Your task to perform on an android device: change alarm snooze length Image 0: 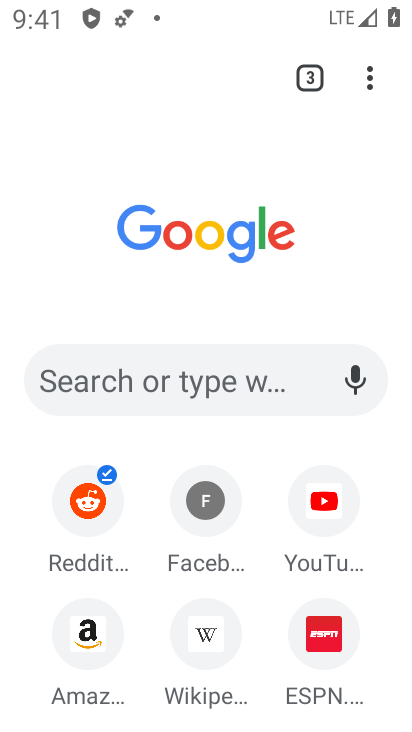
Step 0: press home button
Your task to perform on an android device: change alarm snooze length Image 1: 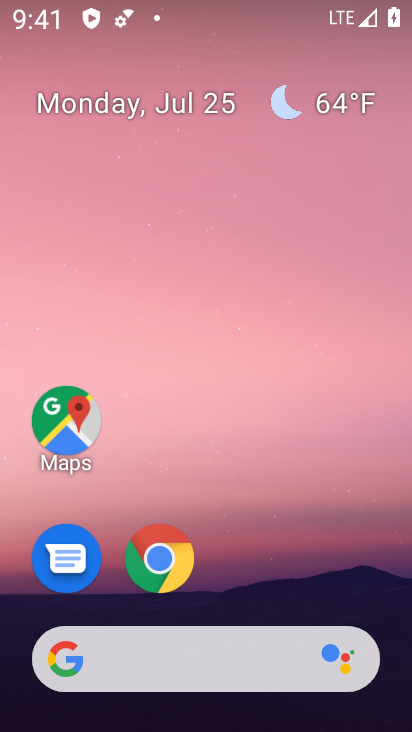
Step 1: drag from (368, 569) to (371, 123)
Your task to perform on an android device: change alarm snooze length Image 2: 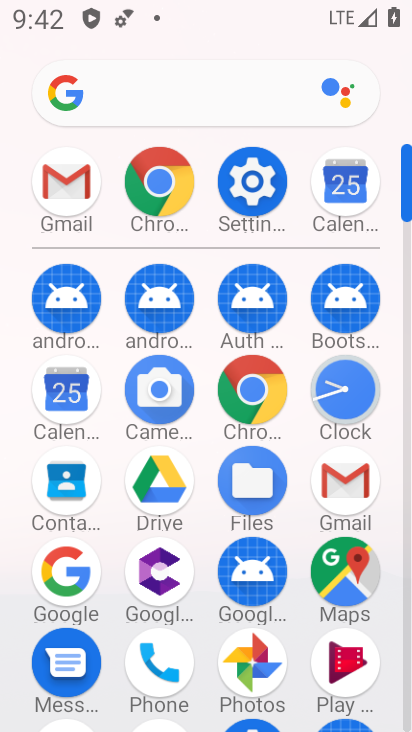
Step 2: click (351, 379)
Your task to perform on an android device: change alarm snooze length Image 3: 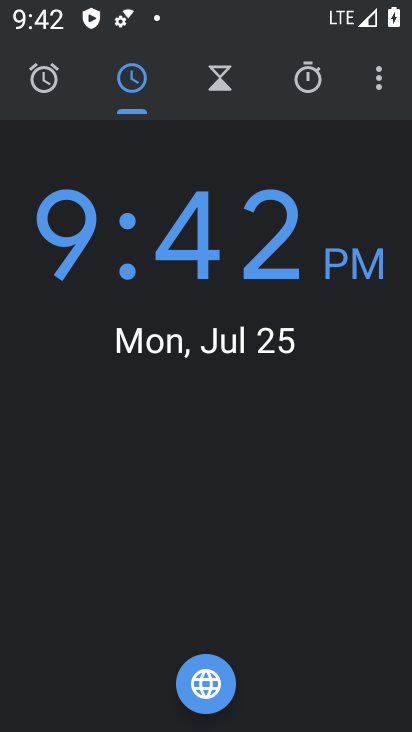
Step 3: click (377, 86)
Your task to perform on an android device: change alarm snooze length Image 4: 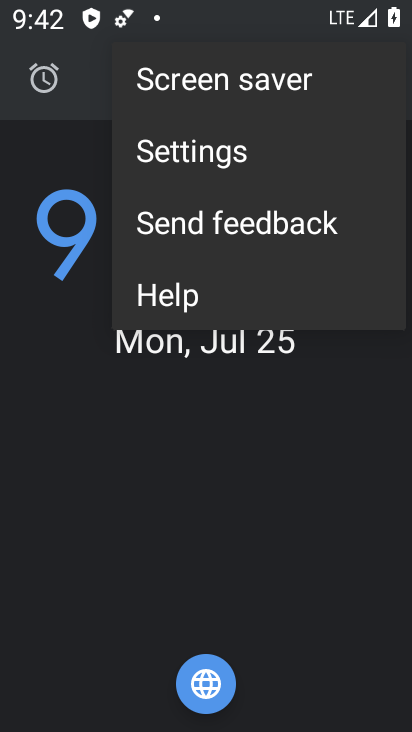
Step 4: click (242, 161)
Your task to perform on an android device: change alarm snooze length Image 5: 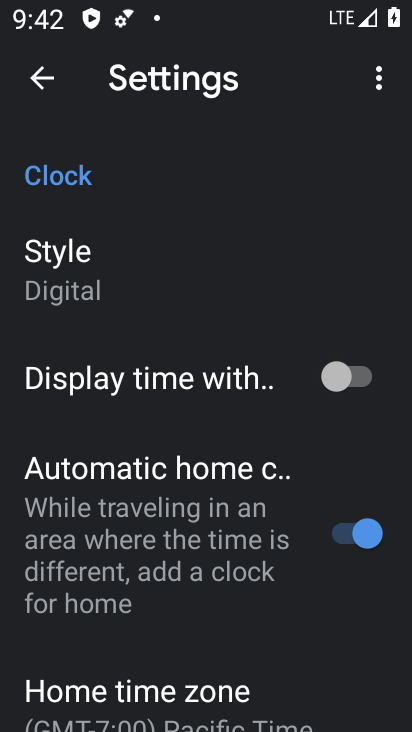
Step 5: drag from (266, 475) to (267, 374)
Your task to perform on an android device: change alarm snooze length Image 6: 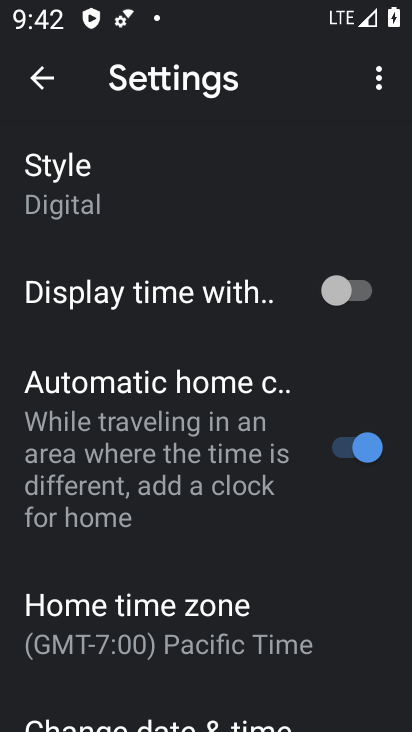
Step 6: drag from (258, 548) to (253, 411)
Your task to perform on an android device: change alarm snooze length Image 7: 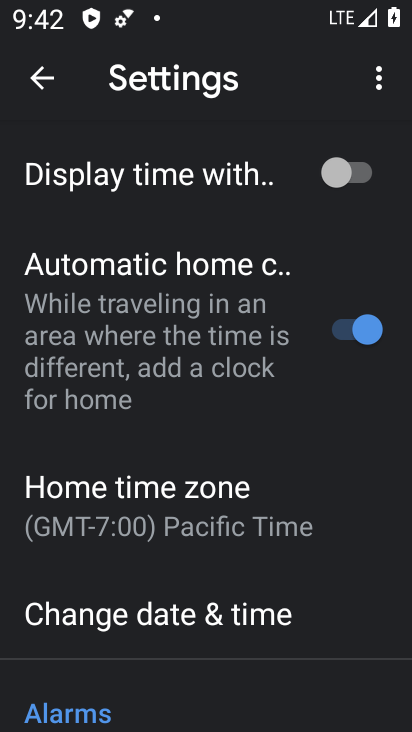
Step 7: drag from (276, 541) to (293, 444)
Your task to perform on an android device: change alarm snooze length Image 8: 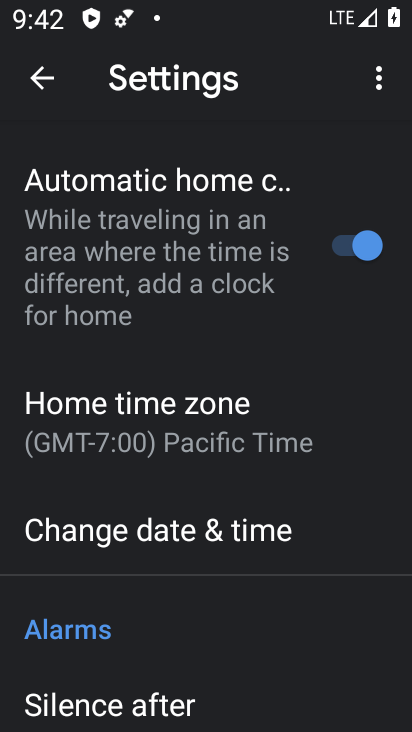
Step 8: drag from (328, 601) to (319, 443)
Your task to perform on an android device: change alarm snooze length Image 9: 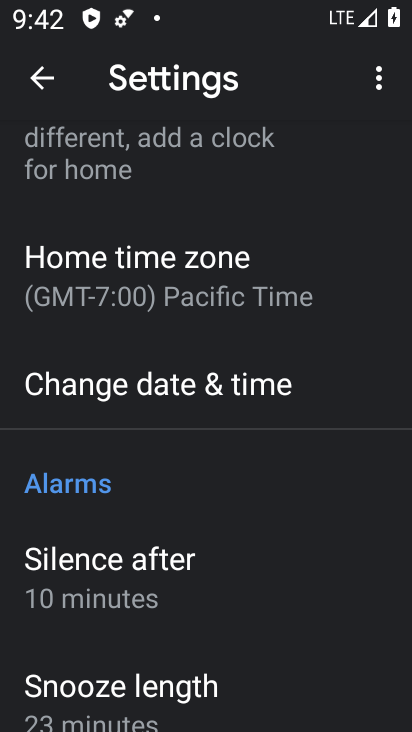
Step 9: drag from (308, 577) to (308, 335)
Your task to perform on an android device: change alarm snooze length Image 10: 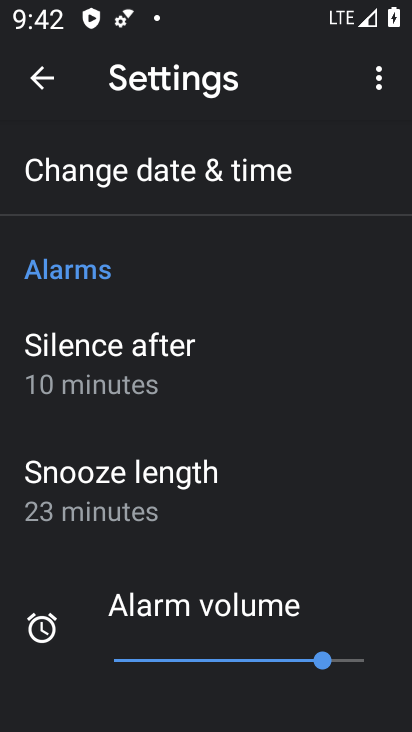
Step 10: drag from (330, 462) to (338, 337)
Your task to perform on an android device: change alarm snooze length Image 11: 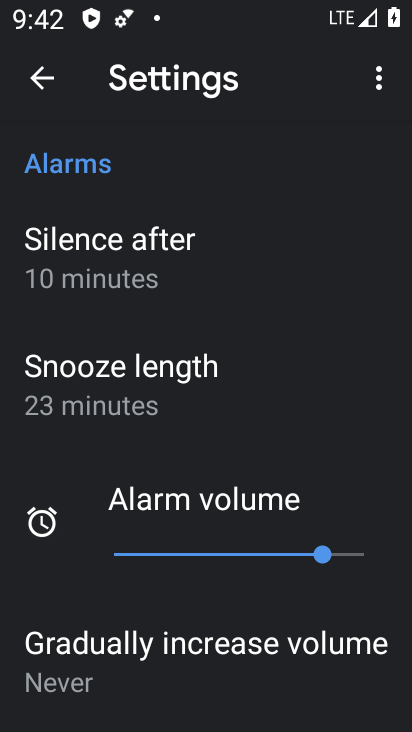
Step 11: drag from (362, 563) to (369, 391)
Your task to perform on an android device: change alarm snooze length Image 12: 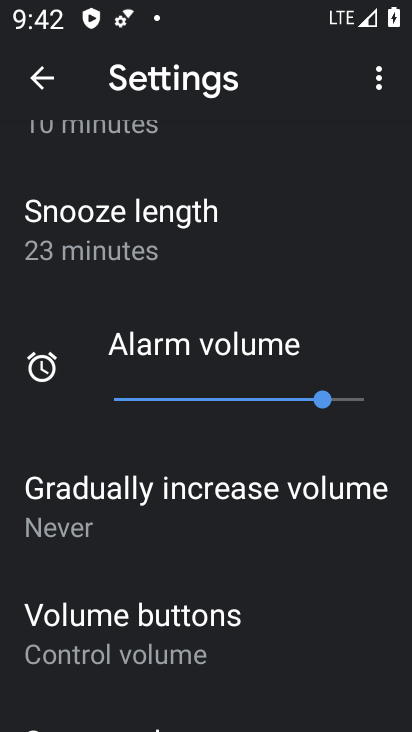
Step 12: drag from (347, 570) to (354, 459)
Your task to perform on an android device: change alarm snooze length Image 13: 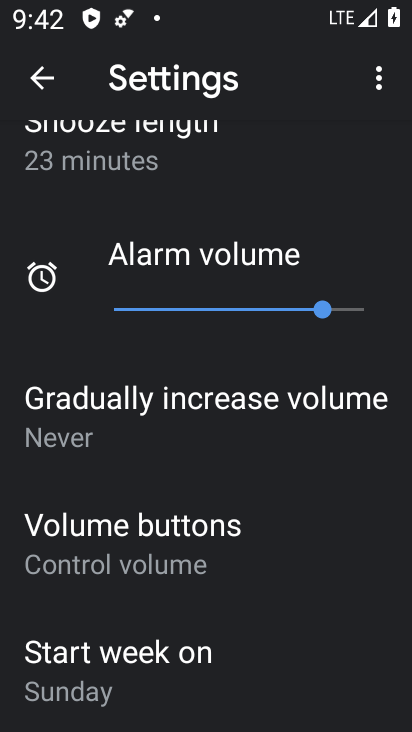
Step 13: drag from (352, 195) to (350, 401)
Your task to perform on an android device: change alarm snooze length Image 14: 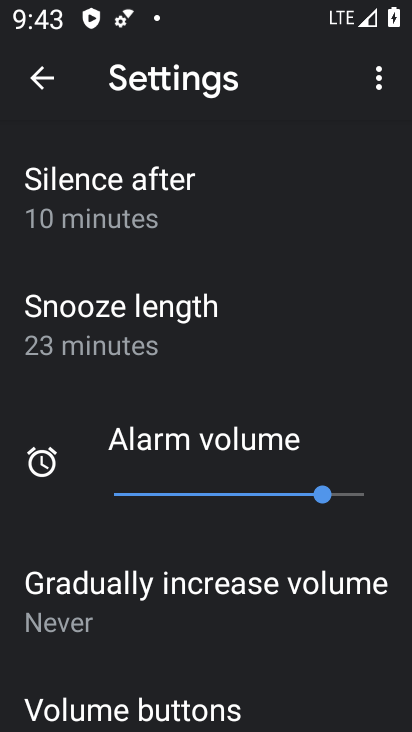
Step 14: drag from (351, 211) to (351, 371)
Your task to perform on an android device: change alarm snooze length Image 15: 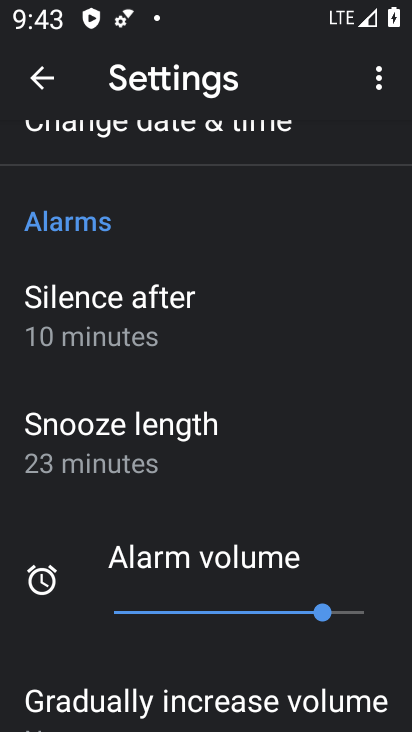
Step 15: click (287, 470)
Your task to perform on an android device: change alarm snooze length Image 16: 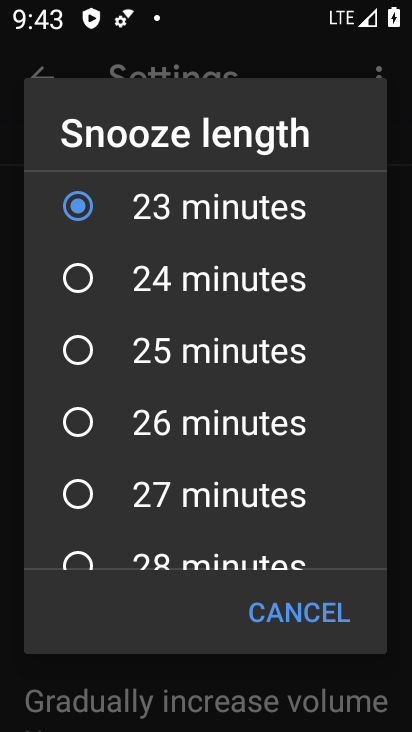
Step 16: click (233, 431)
Your task to perform on an android device: change alarm snooze length Image 17: 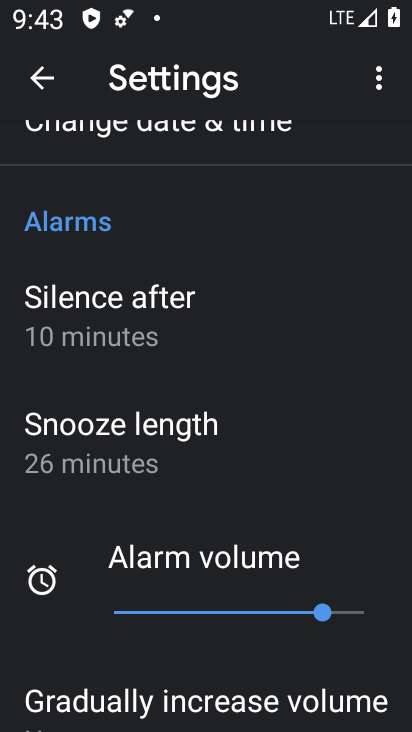
Step 17: task complete